Your task to perform on an android device: empty trash in the gmail app Image 0: 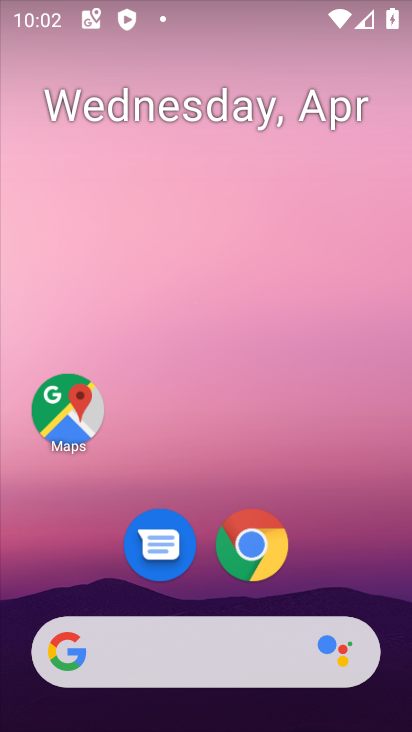
Step 0: drag from (372, 597) to (373, 31)
Your task to perform on an android device: empty trash in the gmail app Image 1: 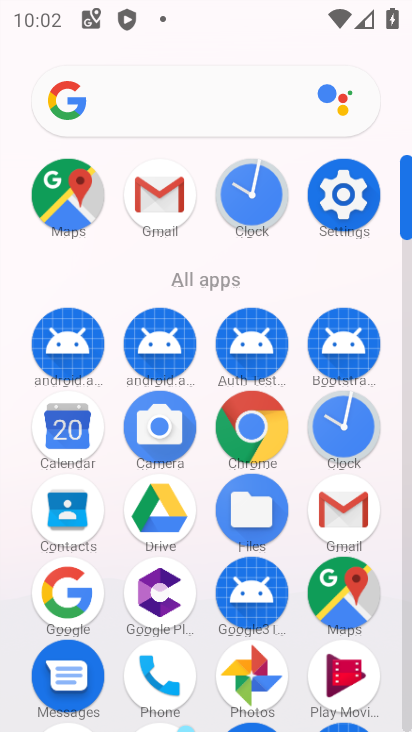
Step 1: click (151, 204)
Your task to perform on an android device: empty trash in the gmail app Image 2: 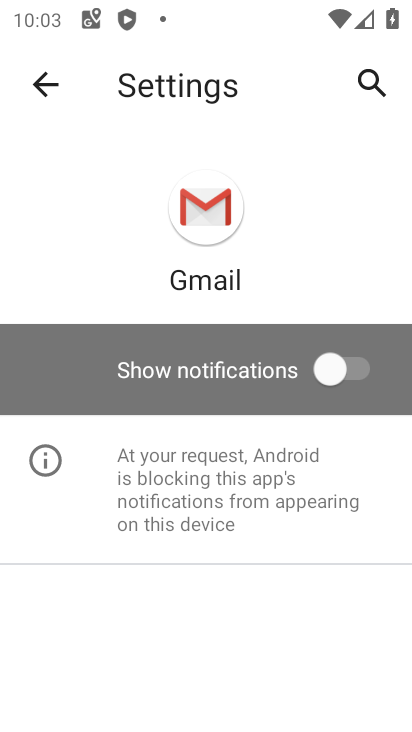
Step 2: click (44, 85)
Your task to perform on an android device: empty trash in the gmail app Image 3: 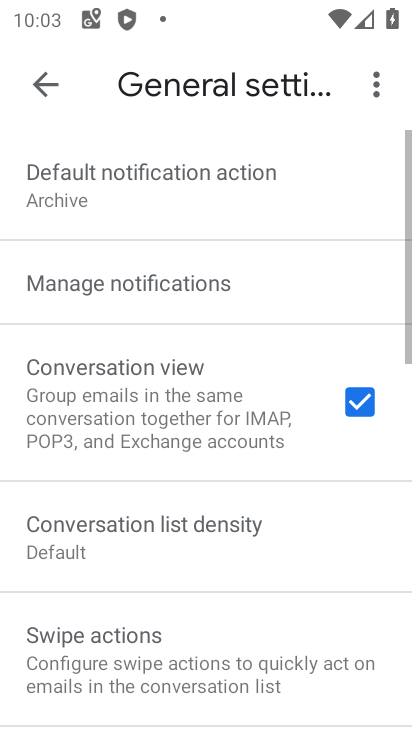
Step 3: click (44, 85)
Your task to perform on an android device: empty trash in the gmail app Image 4: 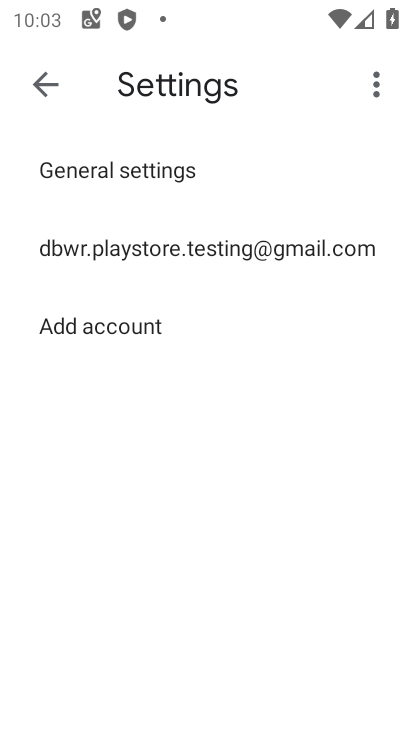
Step 4: click (44, 85)
Your task to perform on an android device: empty trash in the gmail app Image 5: 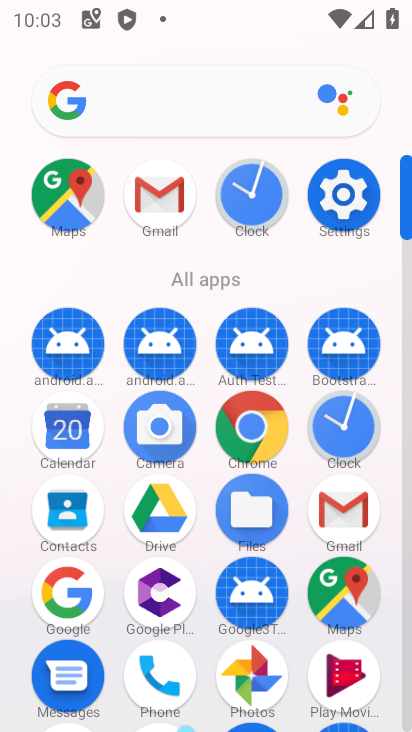
Step 5: click (142, 199)
Your task to perform on an android device: empty trash in the gmail app Image 6: 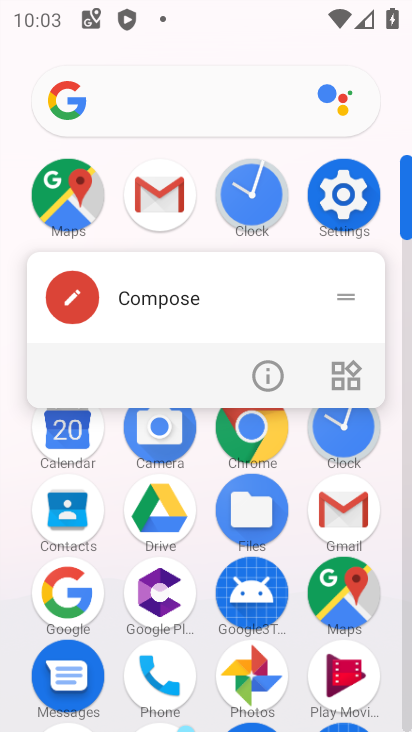
Step 6: click (156, 196)
Your task to perform on an android device: empty trash in the gmail app Image 7: 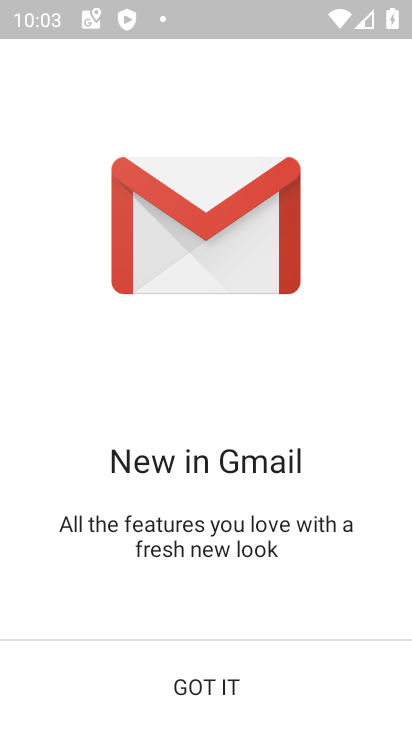
Step 7: click (186, 688)
Your task to perform on an android device: empty trash in the gmail app Image 8: 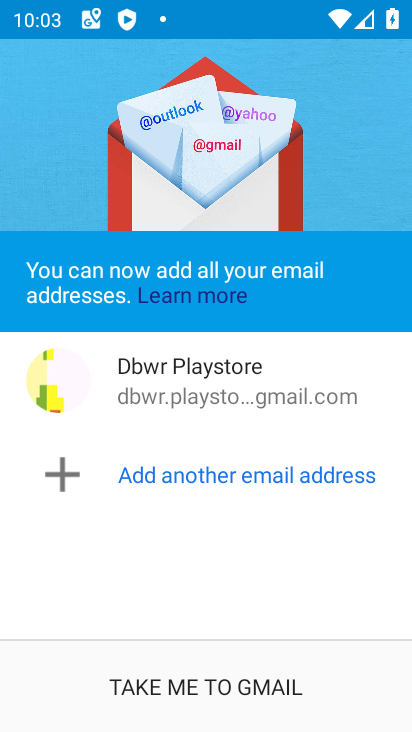
Step 8: click (186, 688)
Your task to perform on an android device: empty trash in the gmail app Image 9: 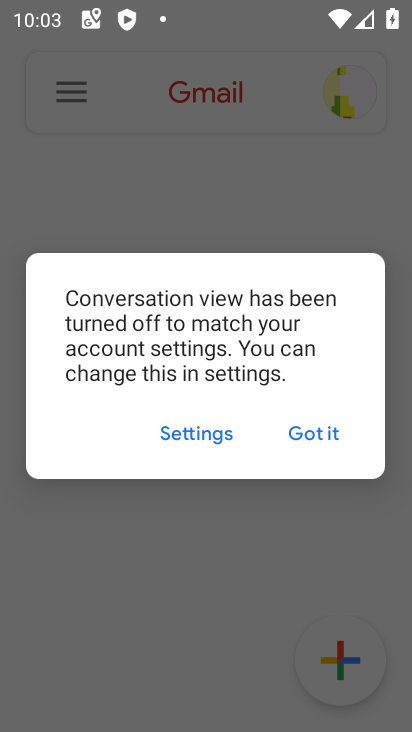
Step 9: click (326, 435)
Your task to perform on an android device: empty trash in the gmail app Image 10: 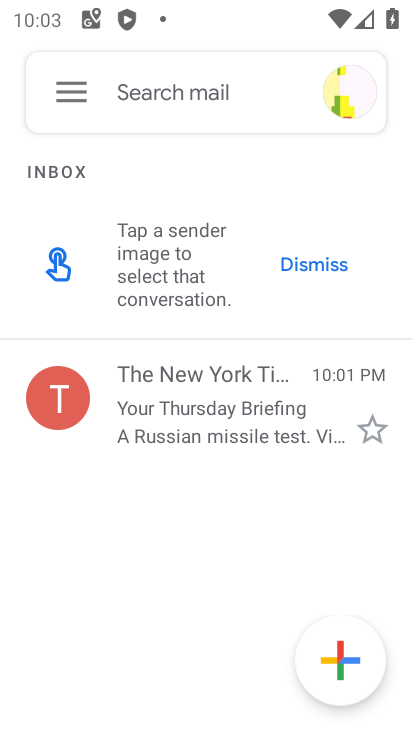
Step 10: click (66, 95)
Your task to perform on an android device: empty trash in the gmail app Image 11: 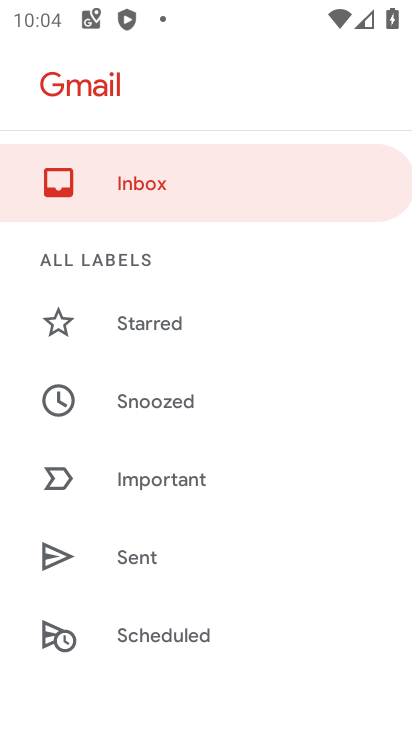
Step 11: drag from (243, 520) to (234, 176)
Your task to perform on an android device: empty trash in the gmail app Image 12: 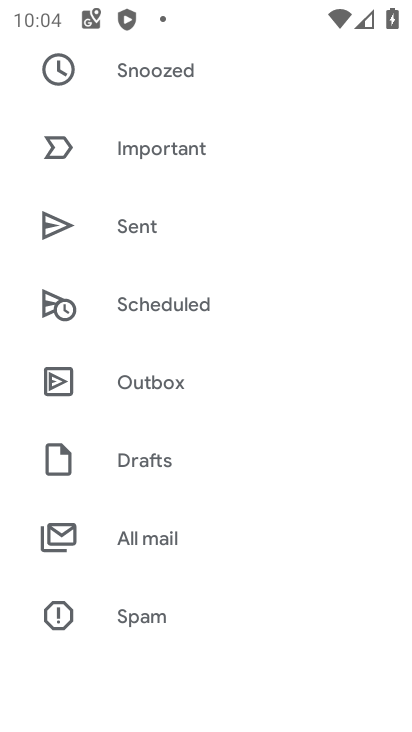
Step 12: drag from (244, 463) to (242, 133)
Your task to perform on an android device: empty trash in the gmail app Image 13: 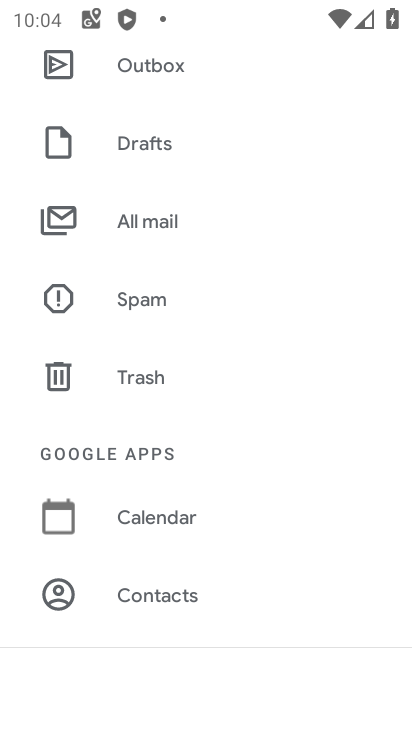
Step 13: click (118, 376)
Your task to perform on an android device: empty trash in the gmail app Image 14: 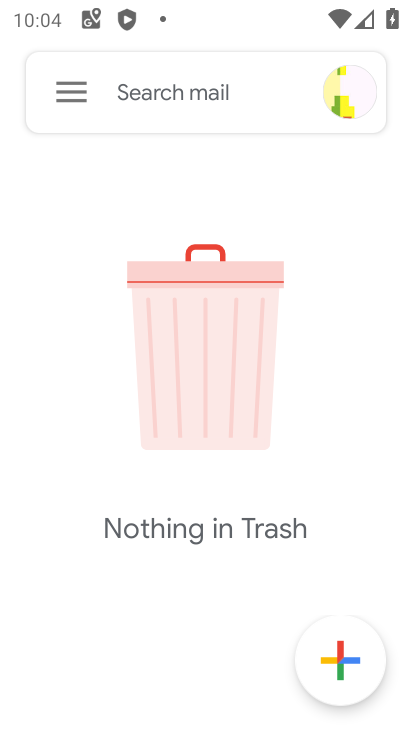
Step 14: task complete